Your task to perform on an android device: turn off improve location accuracy Image 0: 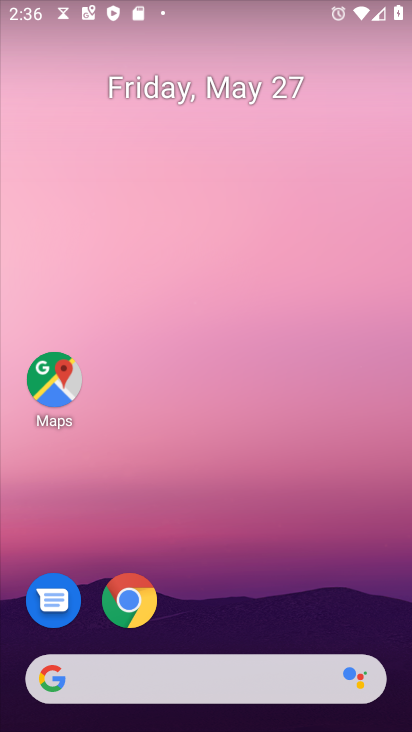
Step 0: drag from (230, 492) to (218, 49)
Your task to perform on an android device: turn off improve location accuracy Image 1: 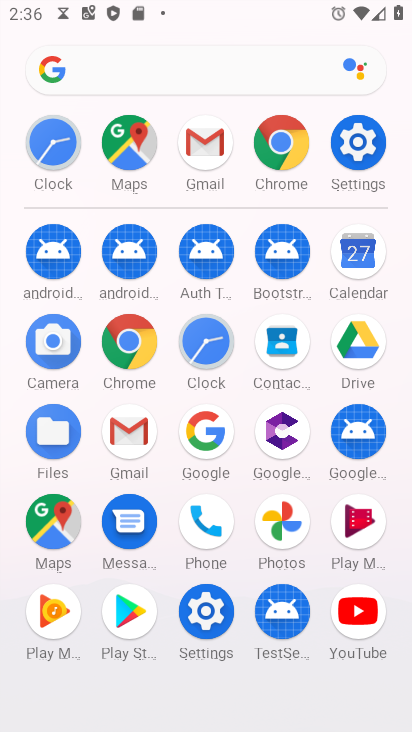
Step 1: click (200, 606)
Your task to perform on an android device: turn off improve location accuracy Image 2: 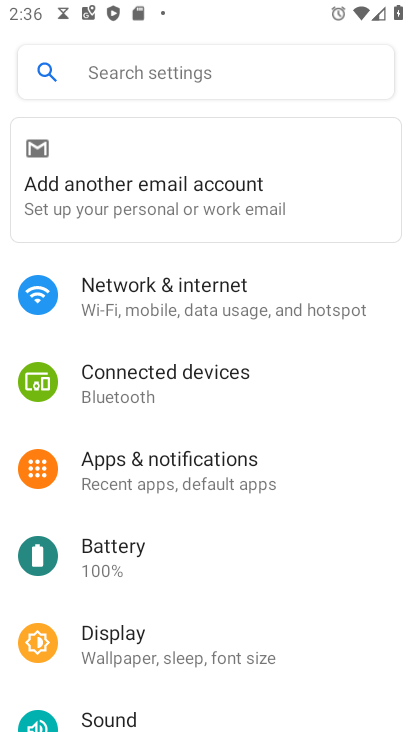
Step 2: drag from (249, 601) to (268, 214)
Your task to perform on an android device: turn off improve location accuracy Image 3: 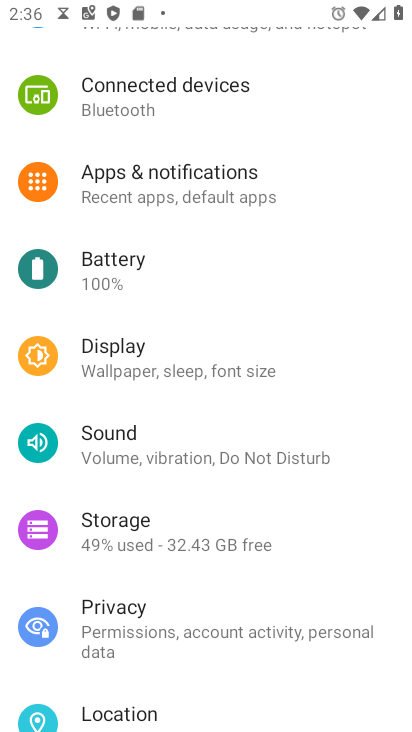
Step 3: click (143, 699)
Your task to perform on an android device: turn off improve location accuracy Image 4: 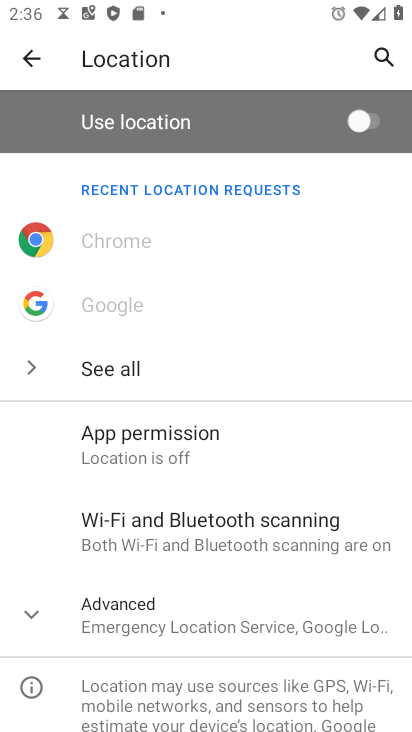
Step 4: drag from (280, 559) to (260, 152)
Your task to perform on an android device: turn off improve location accuracy Image 5: 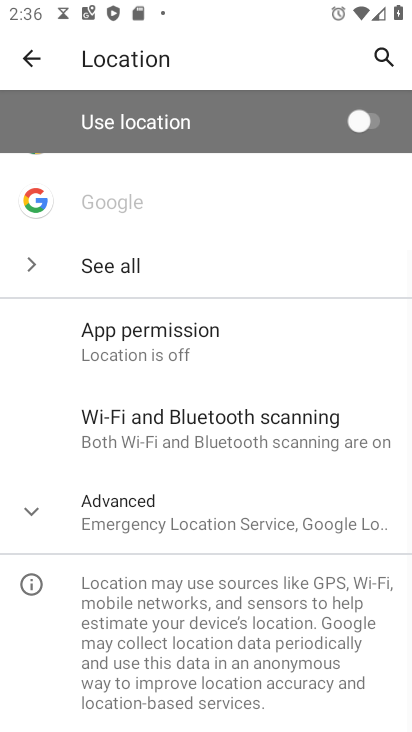
Step 5: click (78, 533)
Your task to perform on an android device: turn off improve location accuracy Image 6: 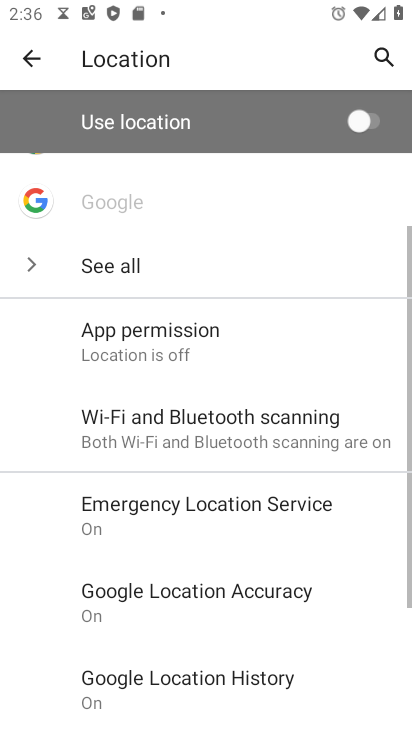
Step 6: drag from (282, 628) to (295, 277)
Your task to perform on an android device: turn off improve location accuracy Image 7: 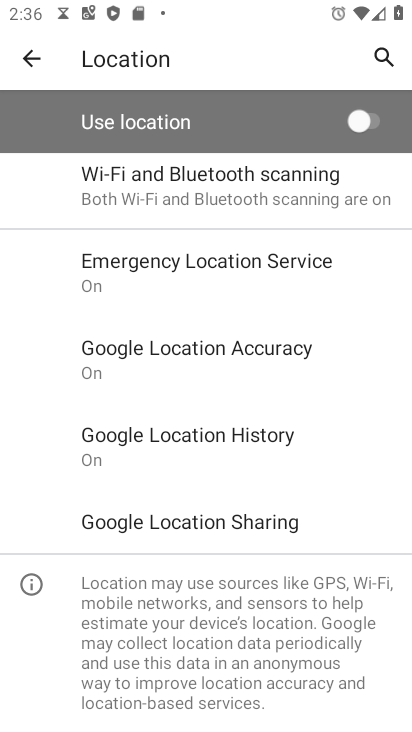
Step 7: click (250, 341)
Your task to perform on an android device: turn off improve location accuracy Image 8: 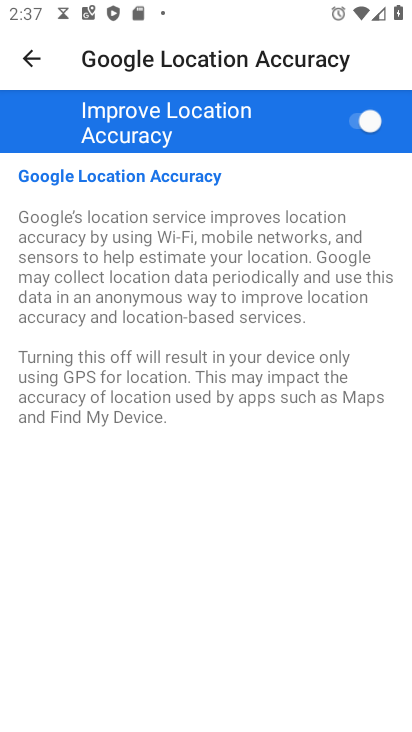
Step 8: click (367, 119)
Your task to perform on an android device: turn off improve location accuracy Image 9: 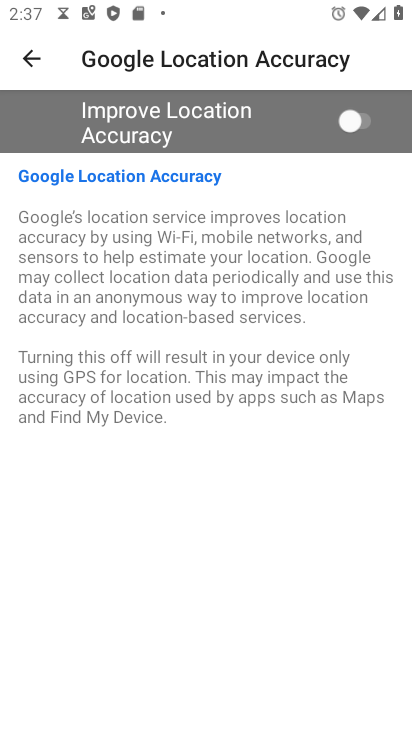
Step 9: task complete